Your task to perform on an android device: Search for cool wooden wall art on Etsy. Image 0: 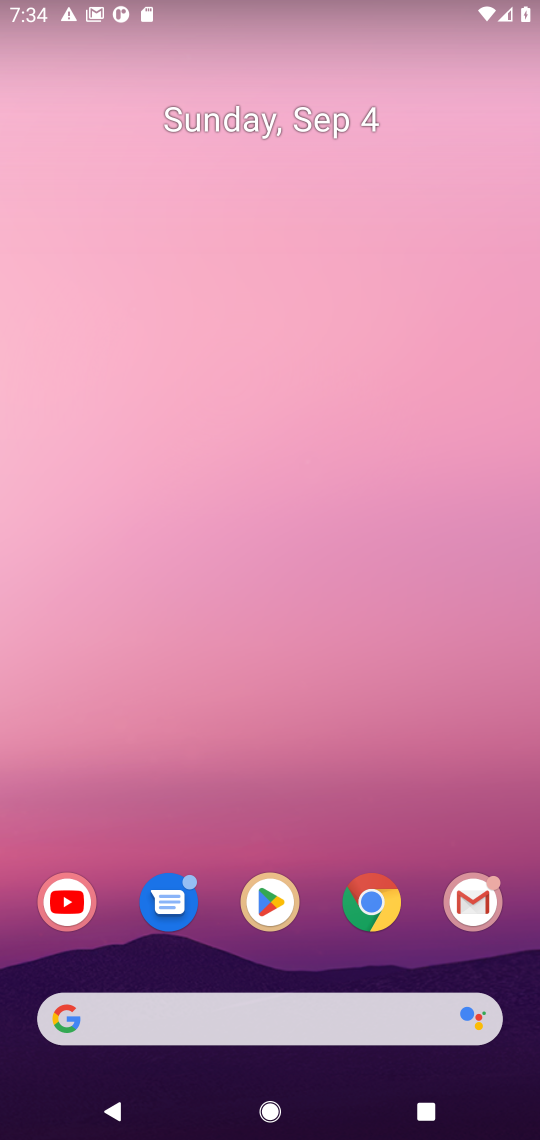
Step 0: click (377, 914)
Your task to perform on an android device: Search for cool wooden wall art on Etsy. Image 1: 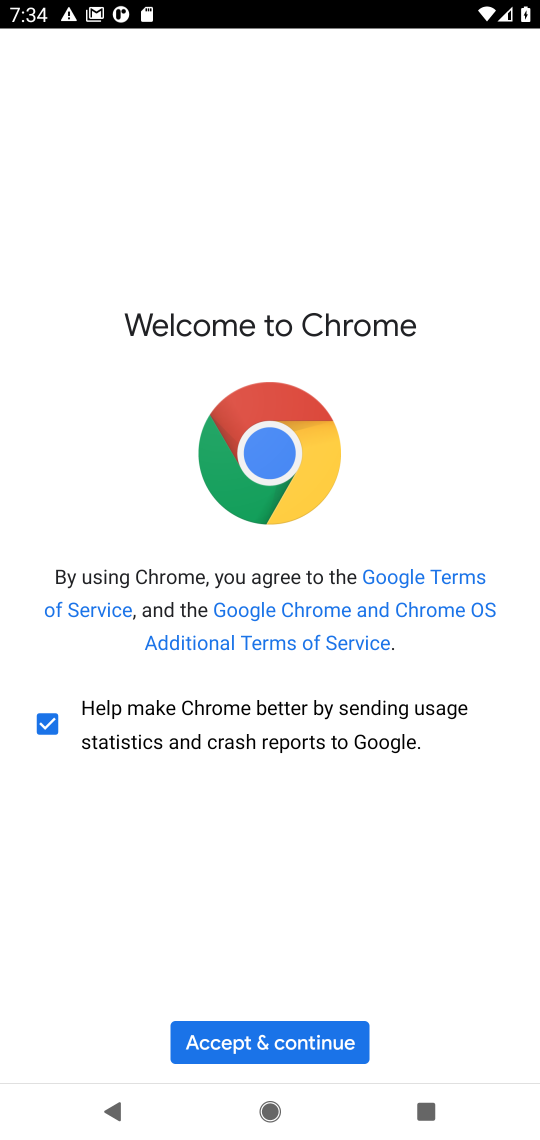
Step 1: click (294, 1061)
Your task to perform on an android device: Search for cool wooden wall art on Etsy. Image 2: 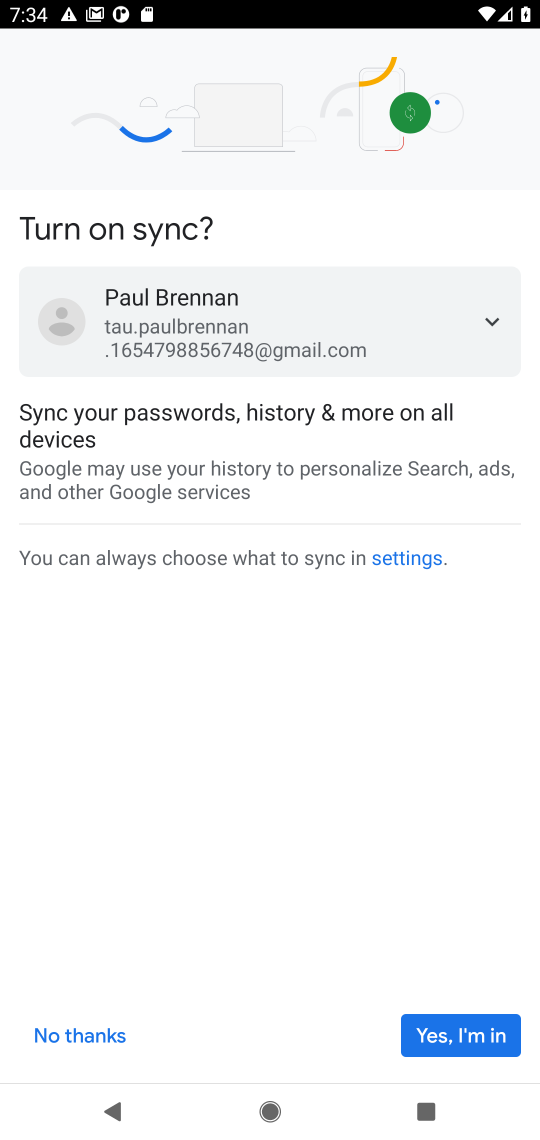
Step 2: click (469, 1032)
Your task to perform on an android device: Search for cool wooden wall art on Etsy. Image 3: 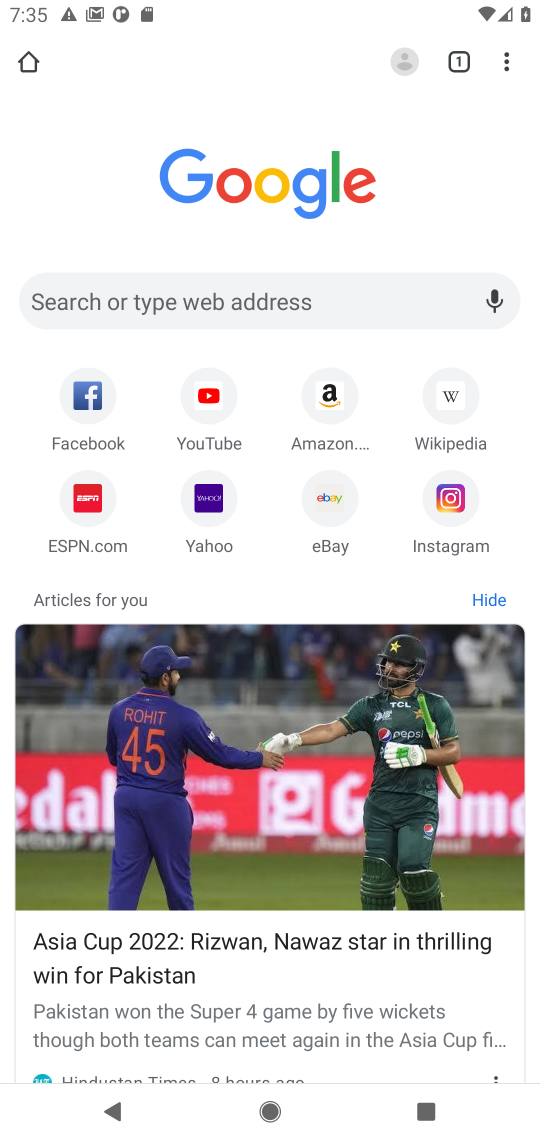
Step 3: click (175, 850)
Your task to perform on an android device: Search for cool wooden wall art on Etsy. Image 4: 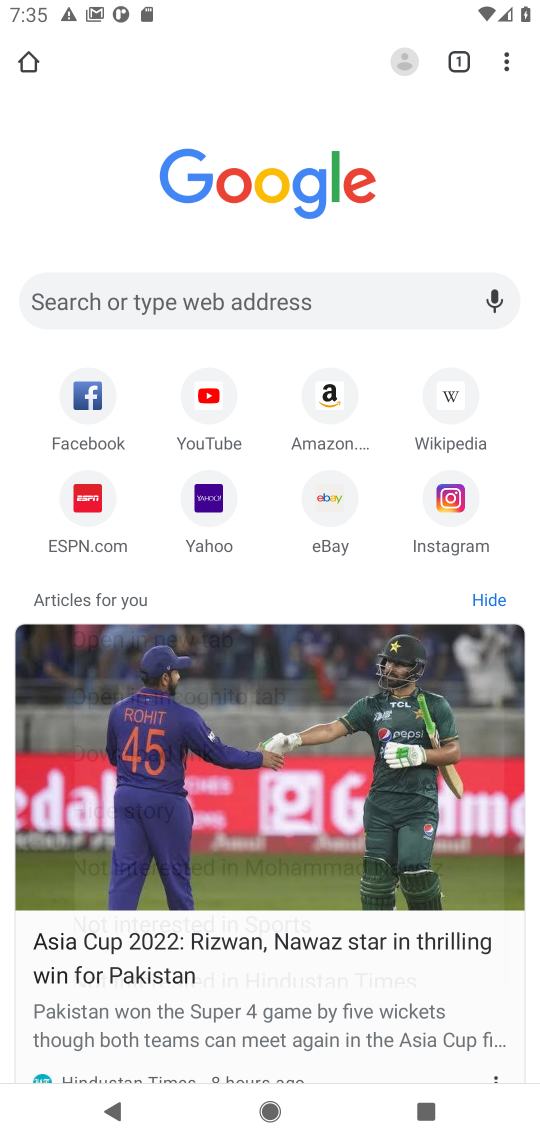
Step 4: task complete